Your task to perform on an android device: Play the last video I watched on Youtube Image 0: 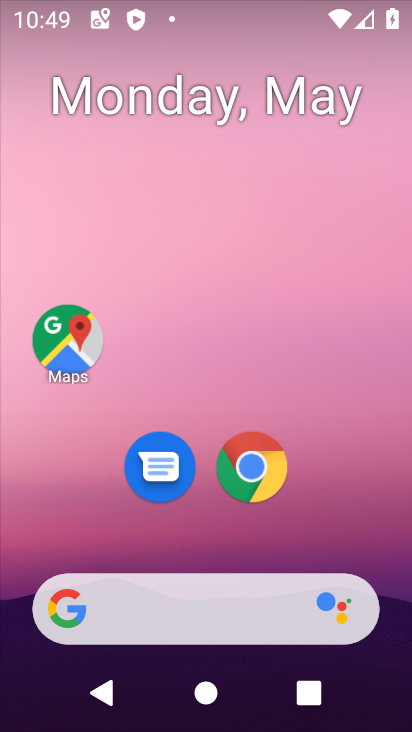
Step 0: drag from (388, 707) to (361, 203)
Your task to perform on an android device: Play the last video I watched on Youtube Image 1: 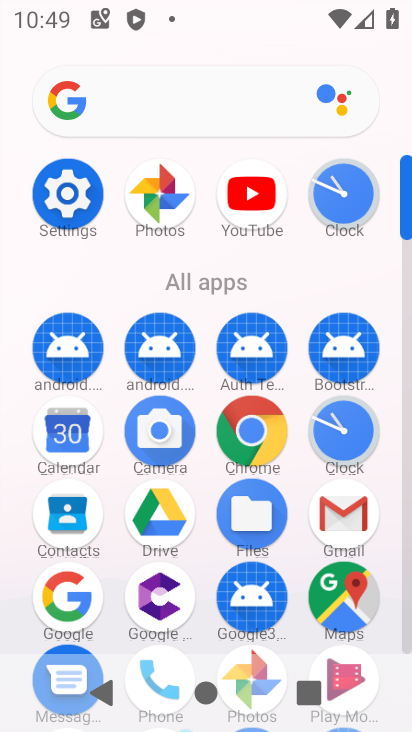
Step 1: click (254, 193)
Your task to perform on an android device: Play the last video I watched on Youtube Image 2: 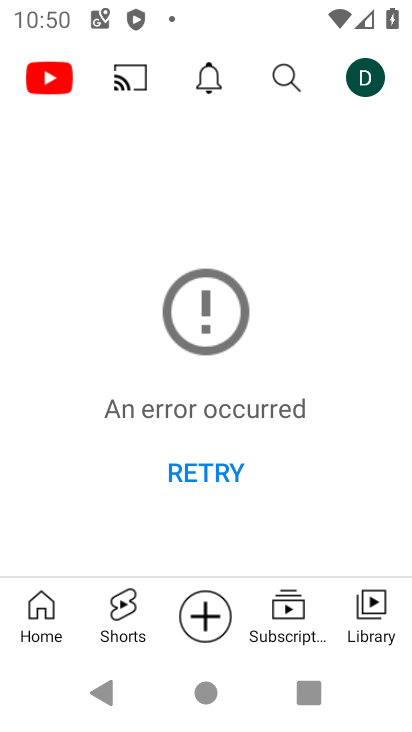
Step 2: click (371, 613)
Your task to perform on an android device: Play the last video I watched on Youtube Image 3: 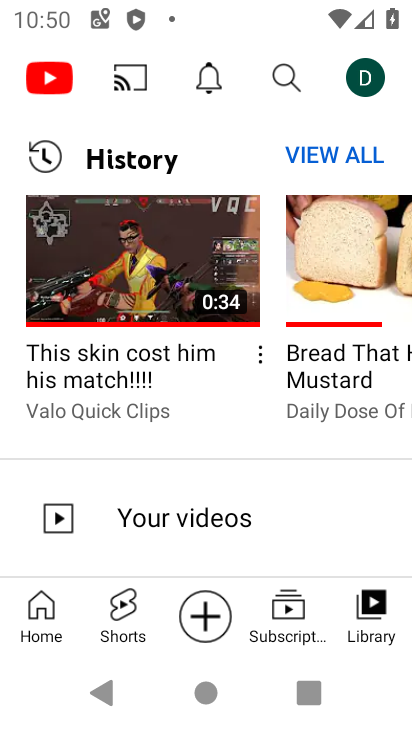
Step 3: click (161, 280)
Your task to perform on an android device: Play the last video I watched on Youtube Image 4: 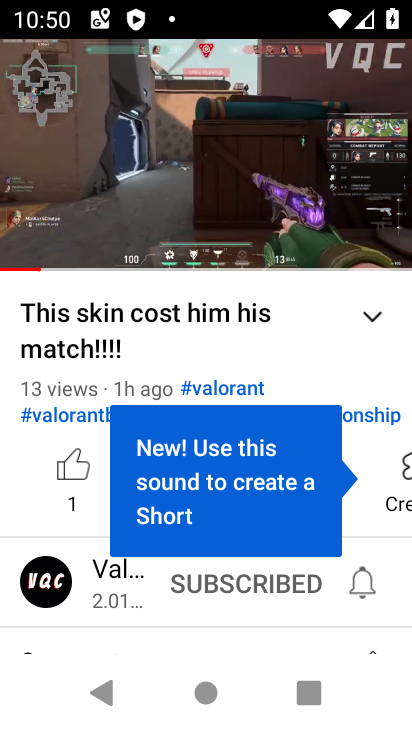
Step 4: task complete